Your task to perform on an android device: Open location settings Image 0: 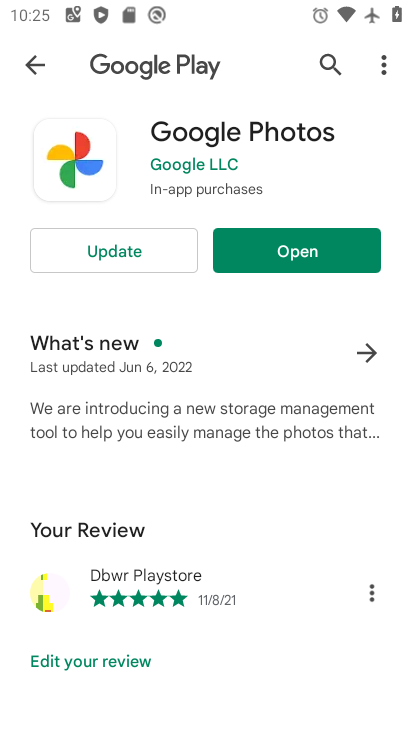
Step 0: press home button
Your task to perform on an android device: Open location settings Image 1: 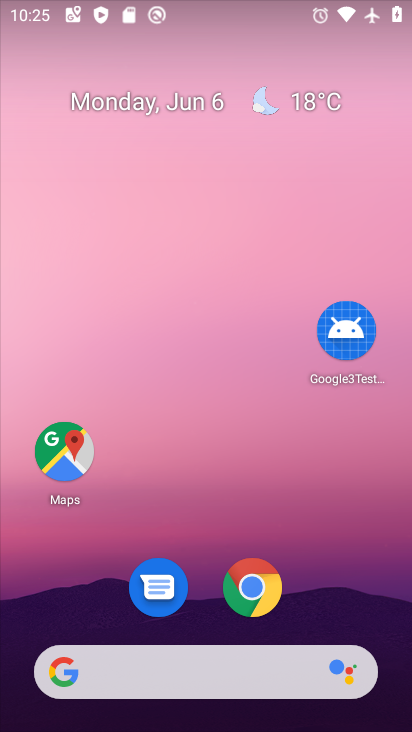
Step 1: drag from (334, 546) to (266, 110)
Your task to perform on an android device: Open location settings Image 2: 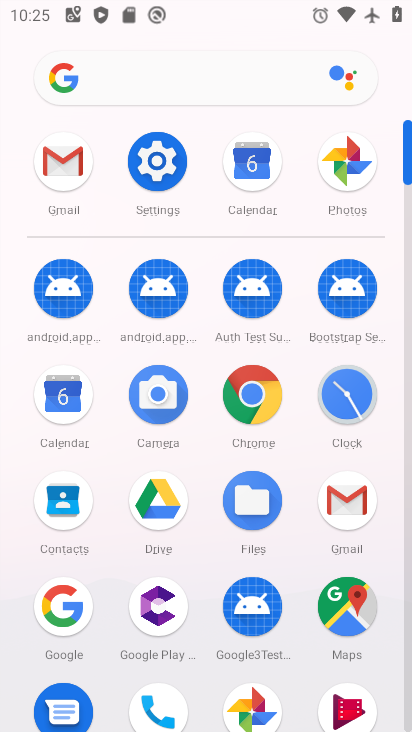
Step 2: click (149, 172)
Your task to perform on an android device: Open location settings Image 3: 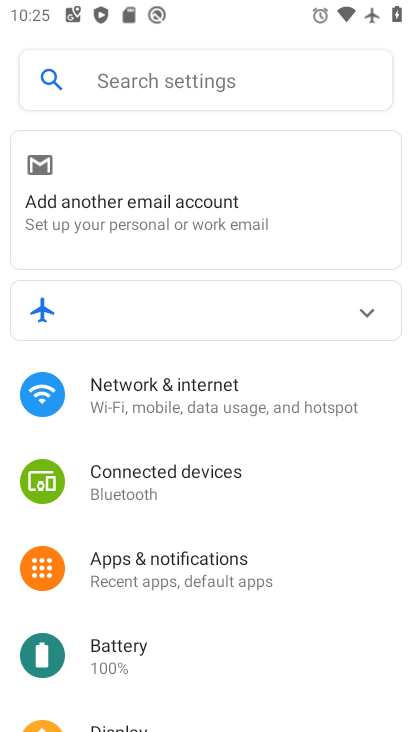
Step 3: drag from (230, 656) to (276, 136)
Your task to perform on an android device: Open location settings Image 4: 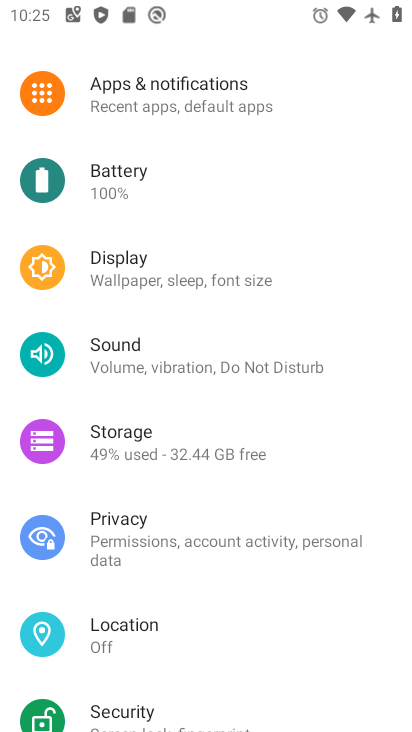
Step 4: click (135, 634)
Your task to perform on an android device: Open location settings Image 5: 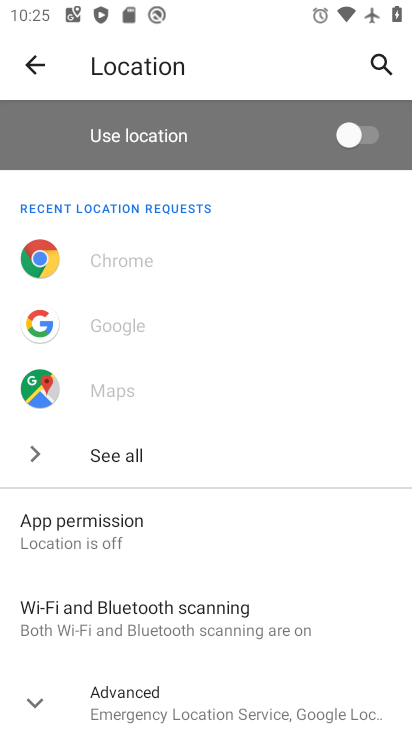
Step 5: task complete